Your task to perform on an android device: Go to calendar. Show me events next week Image 0: 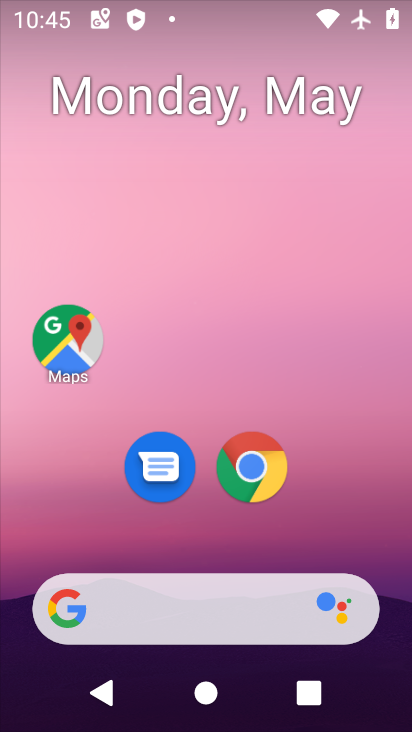
Step 0: drag from (311, 527) to (312, 0)
Your task to perform on an android device: Go to calendar. Show me events next week Image 1: 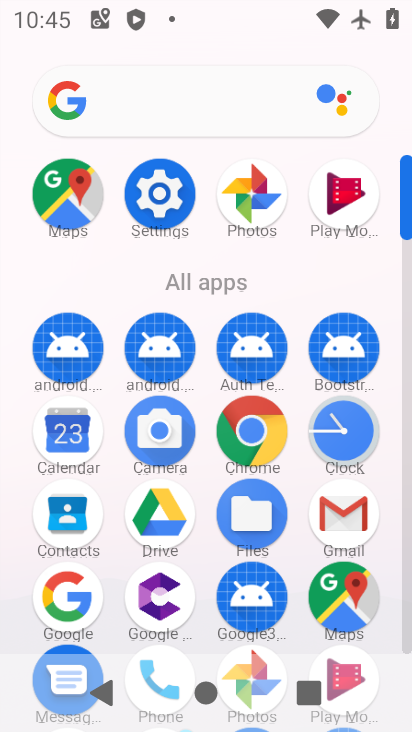
Step 1: click (54, 437)
Your task to perform on an android device: Go to calendar. Show me events next week Image 2: 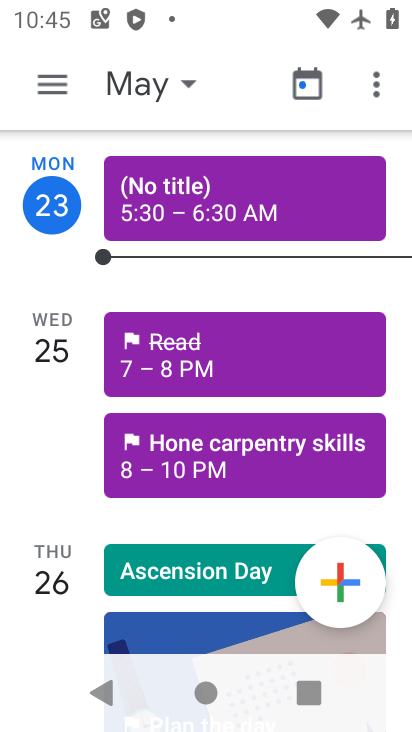
Step 2: click (153, 70)
Your task to perform on an android device: Go to calendar. Show me events next week Image 3: 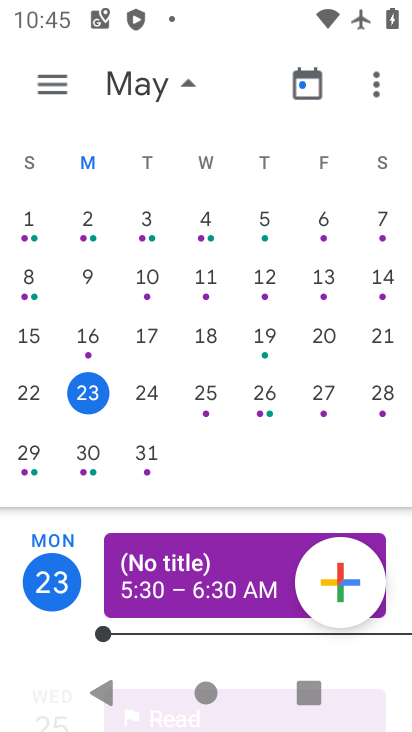
Step 3: click (27, 468)
Your task to perform on an android device: Go to calendar. Show me events next week Image 4: 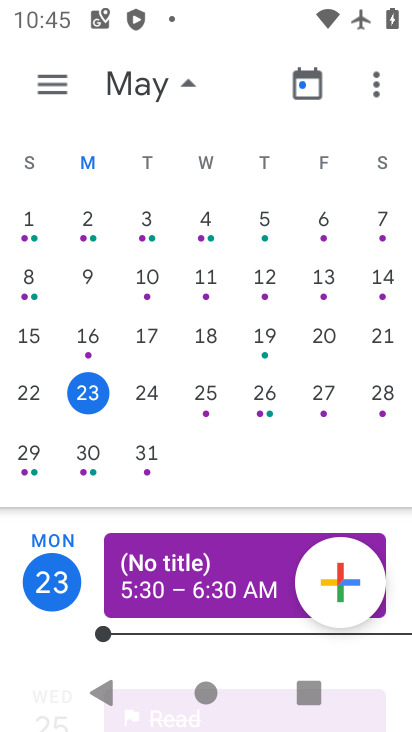
Step 4: click (47, 471)
Your task to perform on an android device: Go to calendar. Show me events next week Image 5: 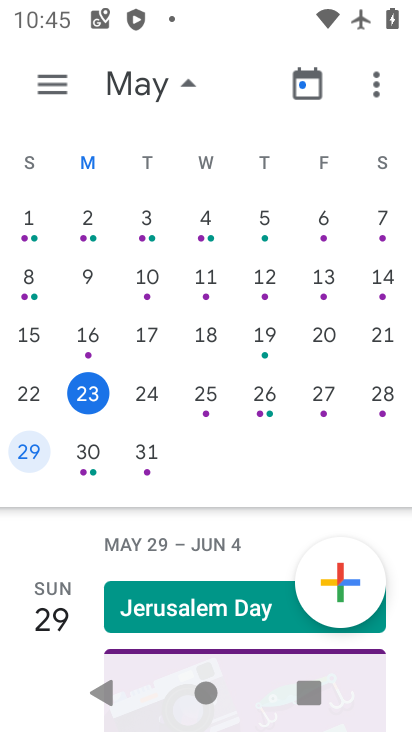
Step 5: task complete